Your task to perform on an android device: toggle notification dots Image 0: 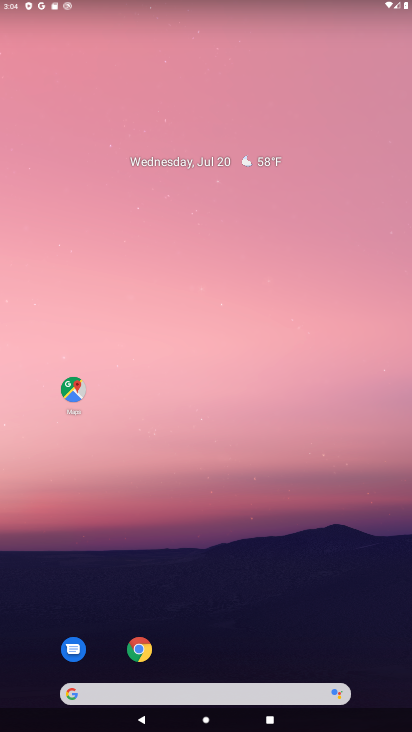
Step 0: drag from (239, 729) to (228, 232)
Your task to perform on an android device: toggle notification dots Image 1: 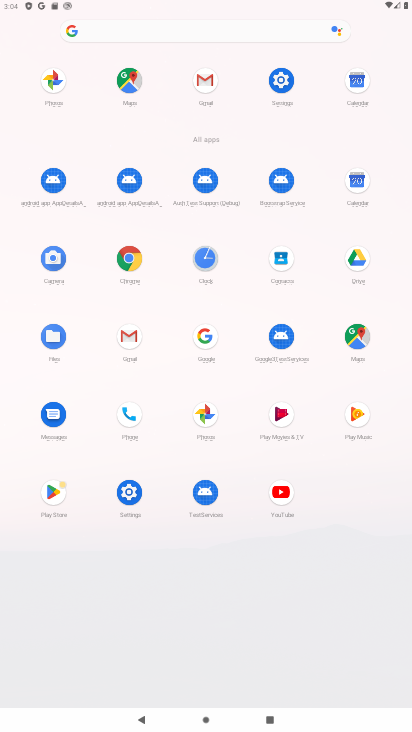
Step 1: click (283, 81)
Your task to perform on an android device: toggle notification dots Image 2: 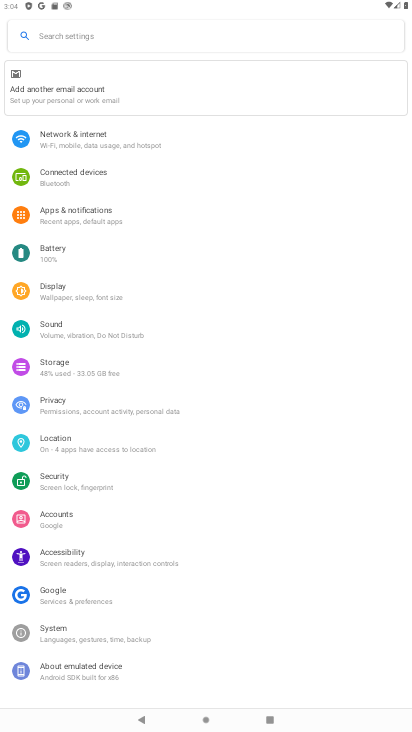
Step 2: click (75, 213)
Your task to perform on an android device: toggle notification dots Image 3: 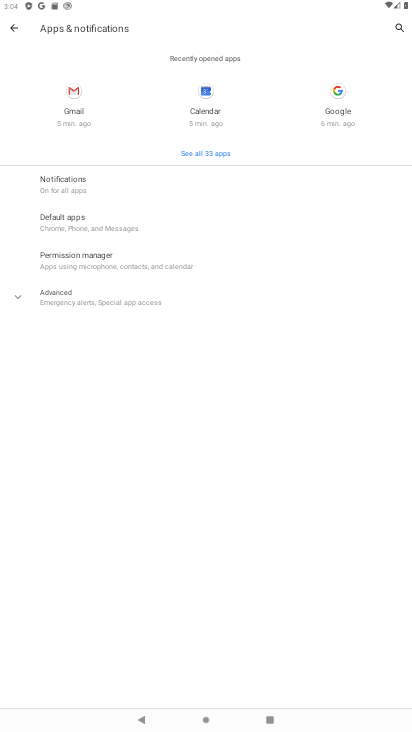
Step 3: click (60, 181)
Your task to perform on an android device: toggle notification dots Image 4: 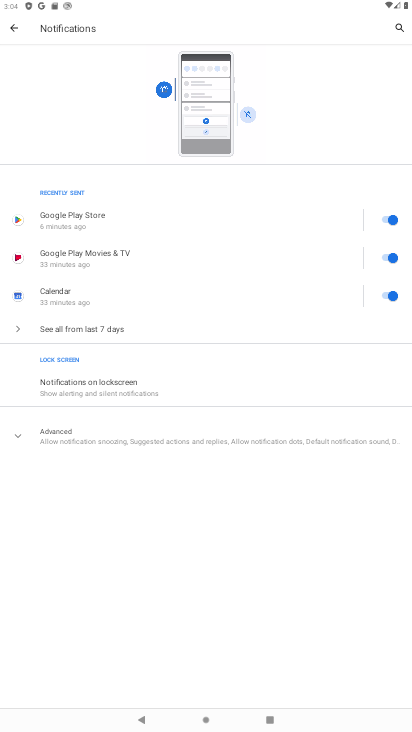
Step 4: click (61, 434)
Your task to perform on an android device: toggle notification dots Image 5: 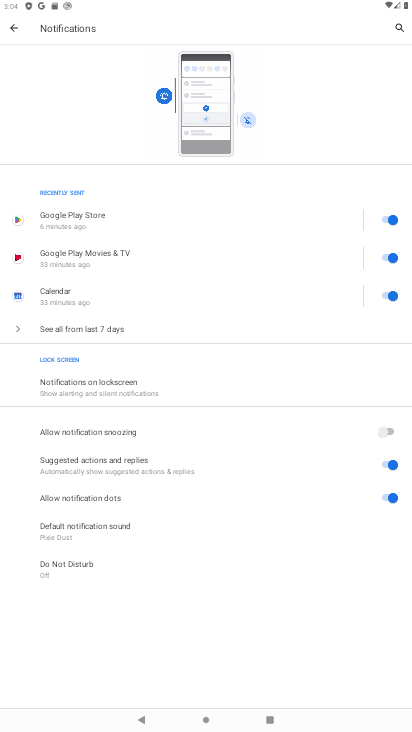
Step 5: click (389, 493)
Your task to perform on an android device: toggle notification dots Image 6: 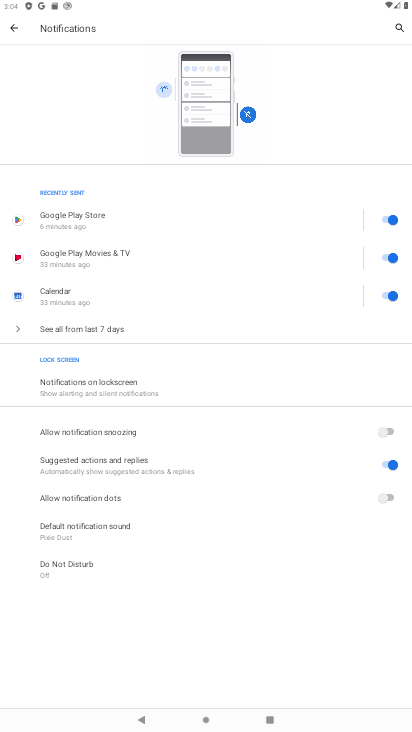
Step 6: task complete